Your task to perform on an android device: set default search engine in the chrome app Image 0: 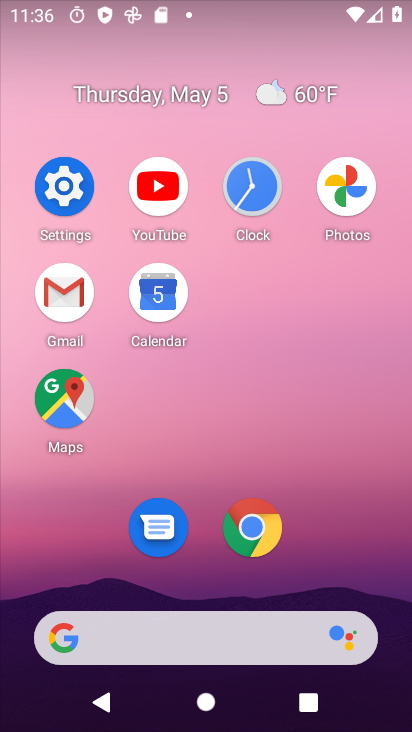
Step 0: click (242, 570)
Your task to perform on an android device: set default search engine in the chrome app Image 1: 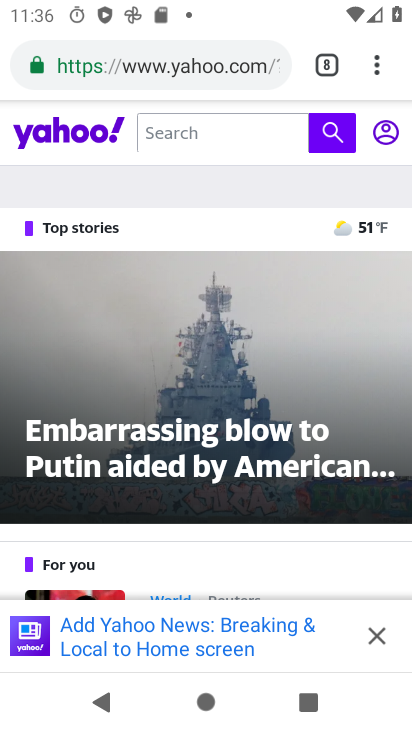
Step 1: click (382, 59)
Your task to perform on an android device: set default search engine in the chrome app Image 2: 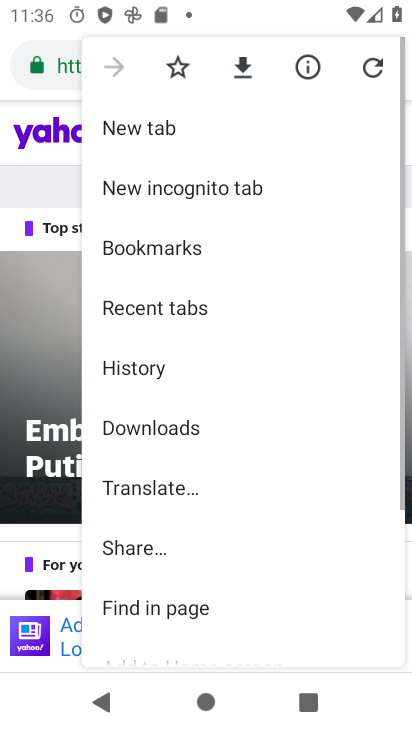
Step 2: drag from (231, 548) to (318, 124)
Your task to perform on an android device: set default search engine in the chrome app Image 3: 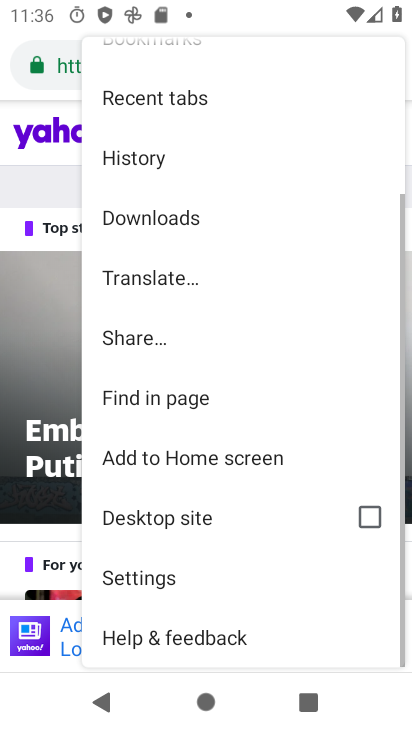
Step 3: click (164, 572)
Your task to perform on an android device: set default search engine in the chrome app Image 4: 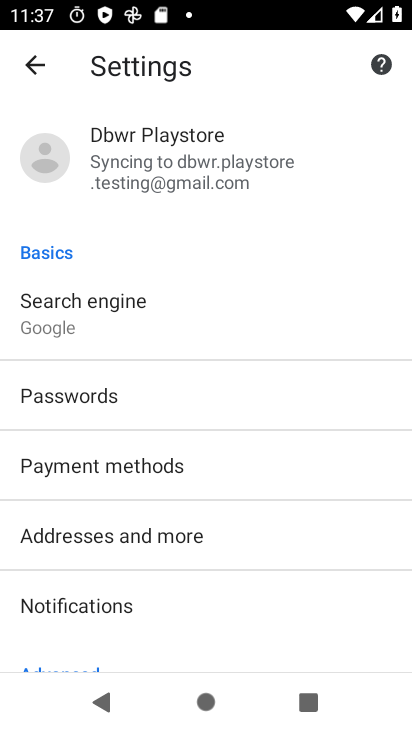
Step 4: click (171, 330)
Your task to perform on an android device: set default search engine in the chrome app Image 5: 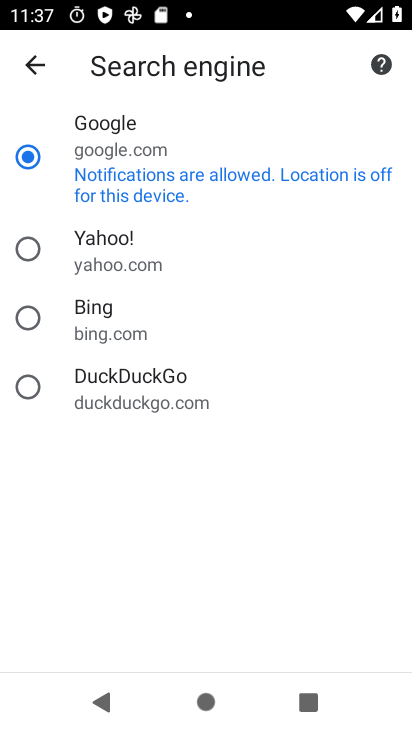
Step 5: task complete